Your task to perform on an android device: View the shopping cart on newegg. Image 0: 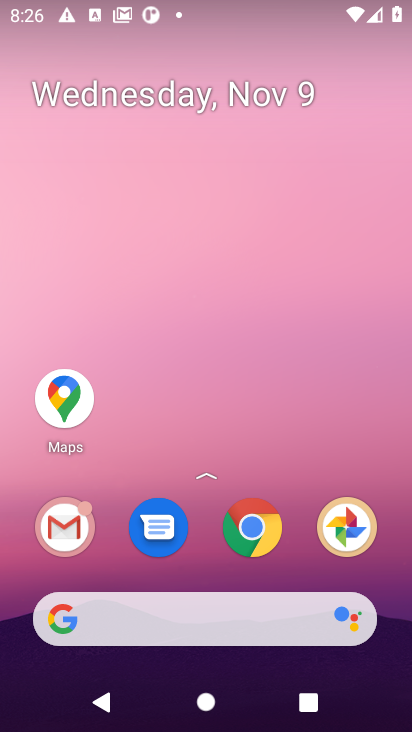
Step 0: click (252, 536)
Your task to perform on an android device: View the shopping cart on newegg. Image 1: 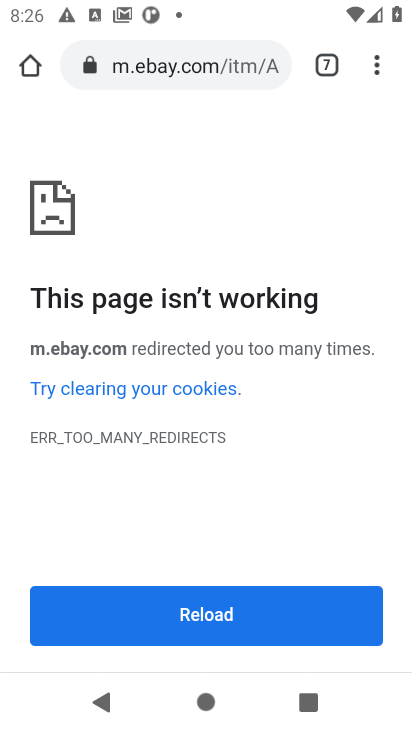
Step 1: click (185, 75)
Your task to perform on an android device: View the shopping cart on newegg. Image 2: 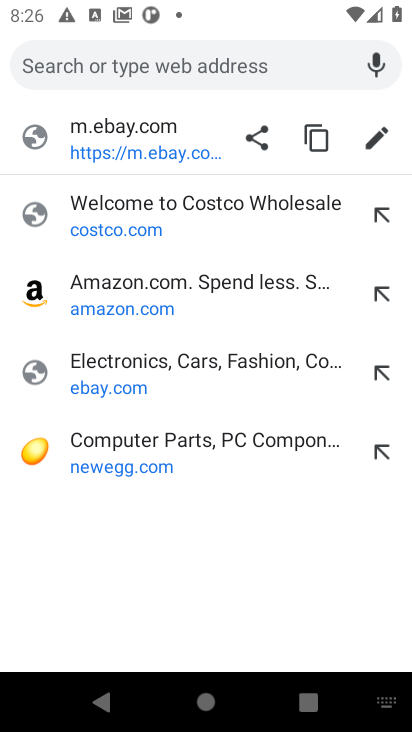
Step 2: click (84, 477)
Your task to perform on an android device: View the shopping cart on newegg. Image 3: 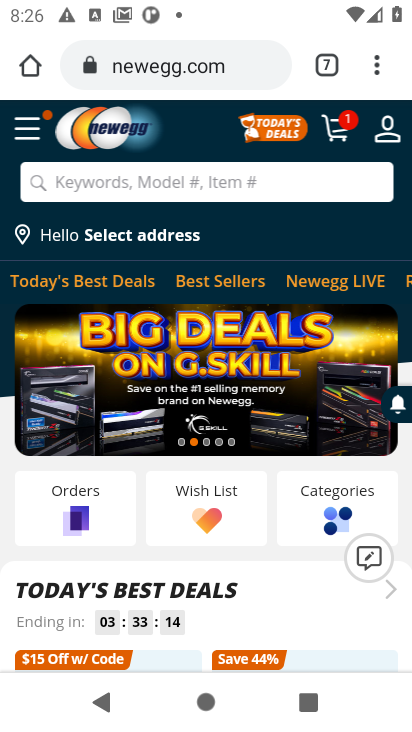
Step 3: click (343, 125)
Your task to perform on an android device: View the shopping cart on newegg. Image 4: 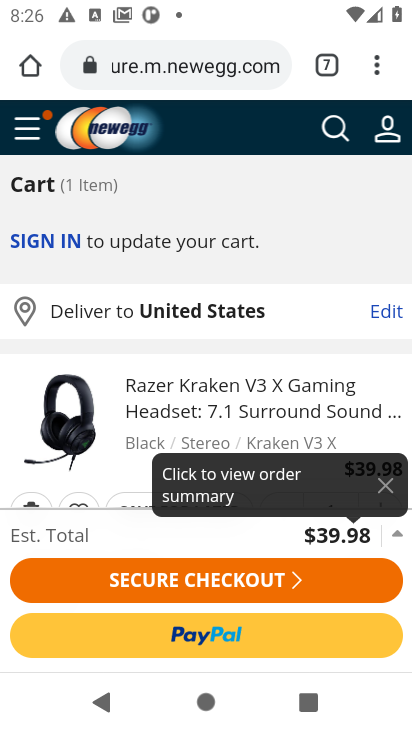
Step 4: task complete